Your task to perform on an android device: open a new tab in the chrome app Image 0: 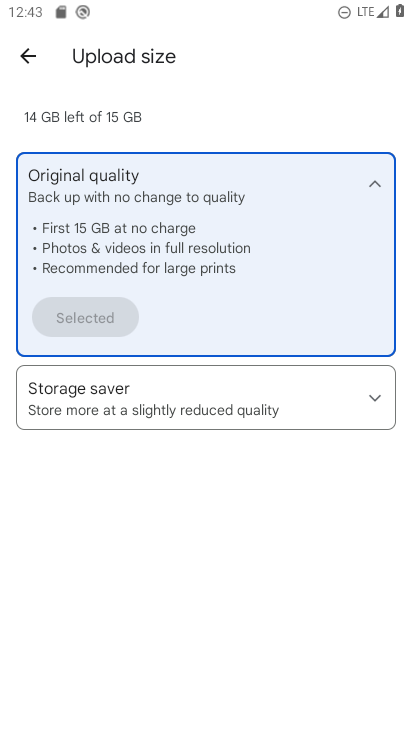
Step 0: press home button
Your task to perform on an android device: open a new tab in the chrome app Image 1: 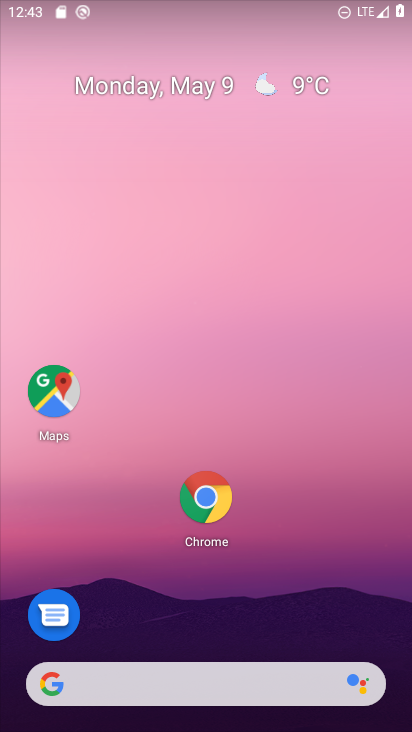
Step 1: drag from (322, 591) to (319, 7)
Your task to perform on an android device: open a new tab in the chrome app Image 2: 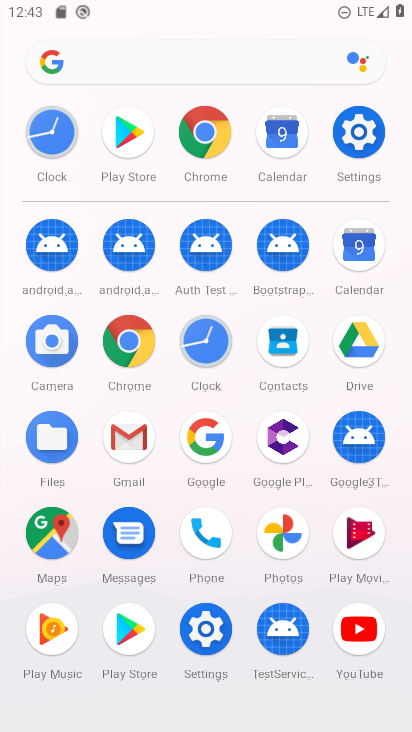
Step 2: click (204, 131)
Your task to perform on an android device: open a new tab in the chrome app Image 3: 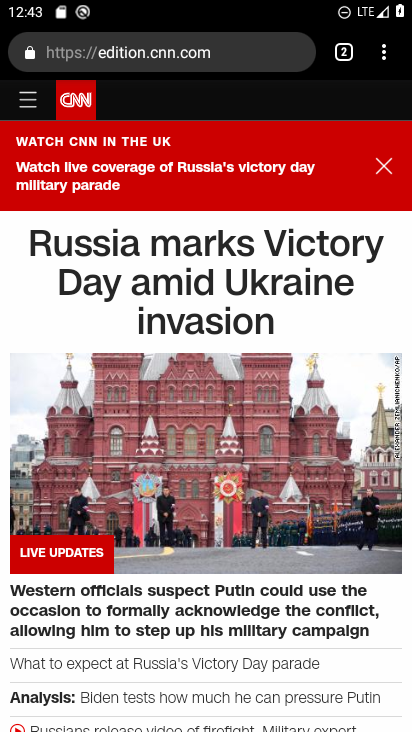
Step 3: task complete